Your task to perform on an android device: change the clock style Image 0: 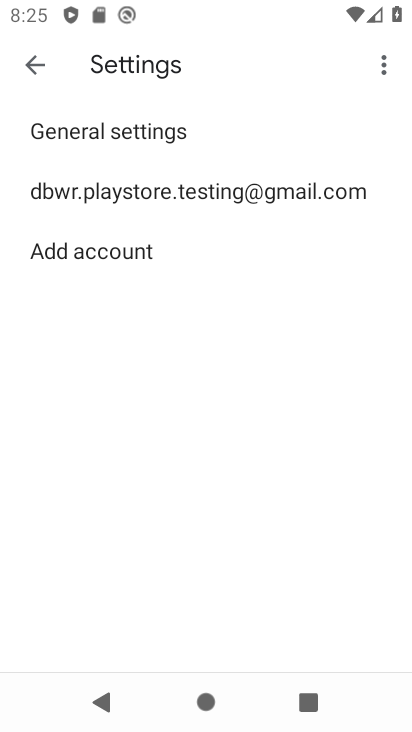
Step 0: press home button
Your task to perform on an android device: change the clock style Image 1: 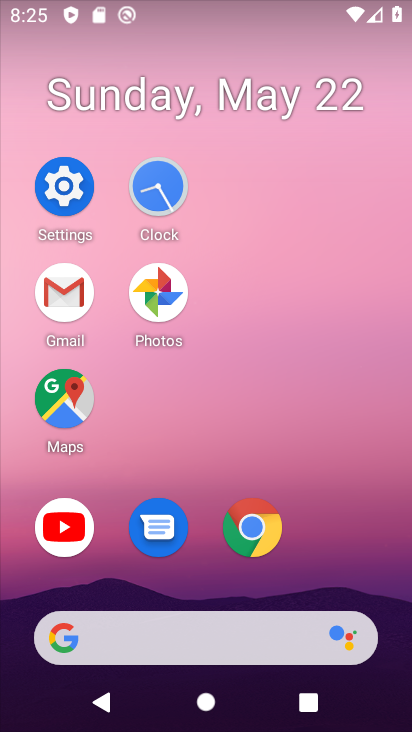
Step 1: click (175, 196)
Your task to perform on an android device: change the clock style Image 2: 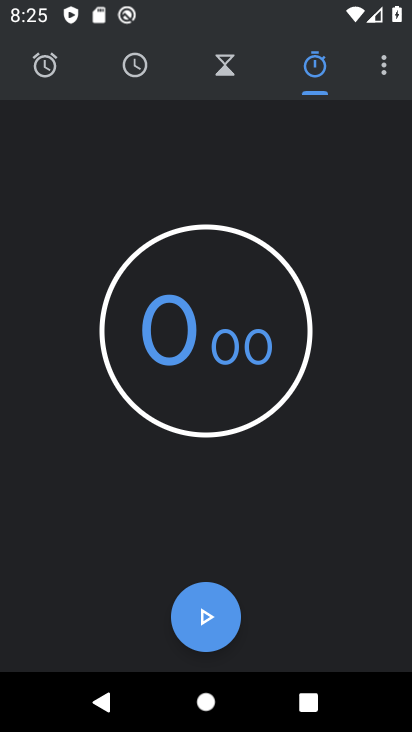
Step 2: click (394, 61)
Your task to perform on an android device: change the clock style Image 3: 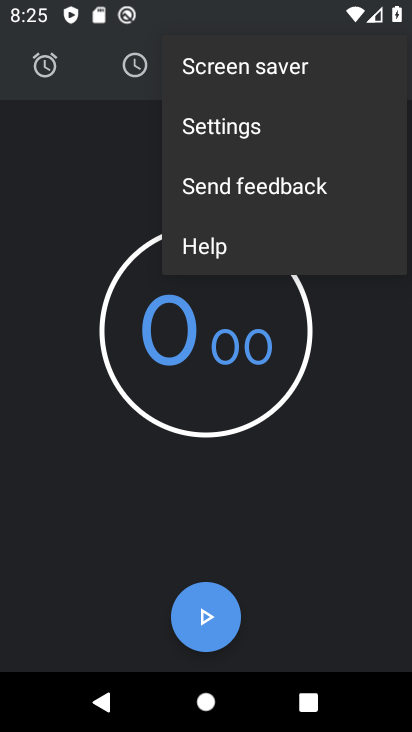
Step 3: click (188, 109)
Your task to perform on an android device: change the clock style Image 4: 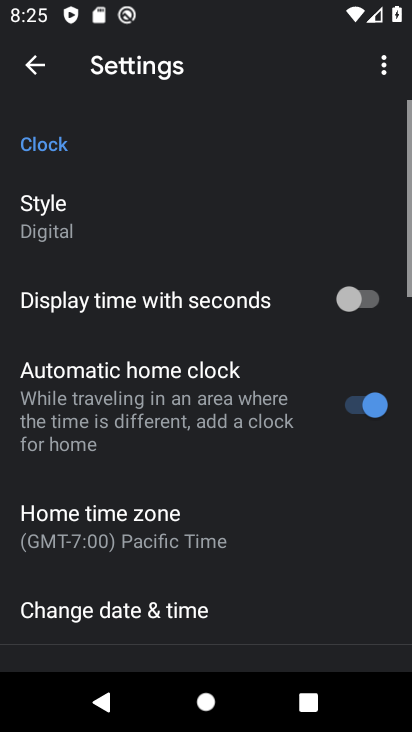
Step 4: click (98, 230)
Your task to perform on an android device: change the clock style Image 5: 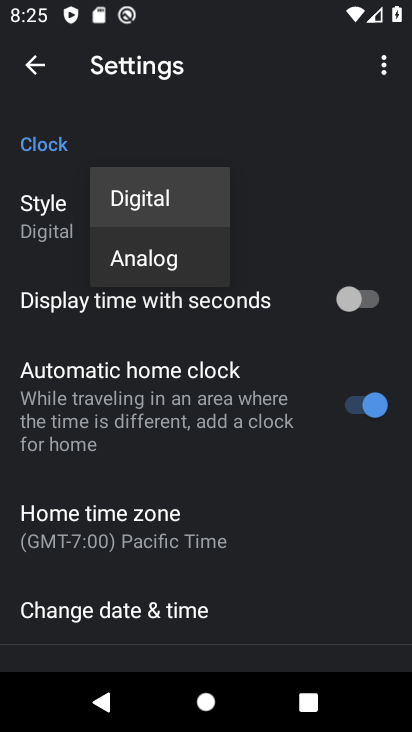
Step 5: click (119, 266)
Your task to perform on an android device: change the clock style Image 6: 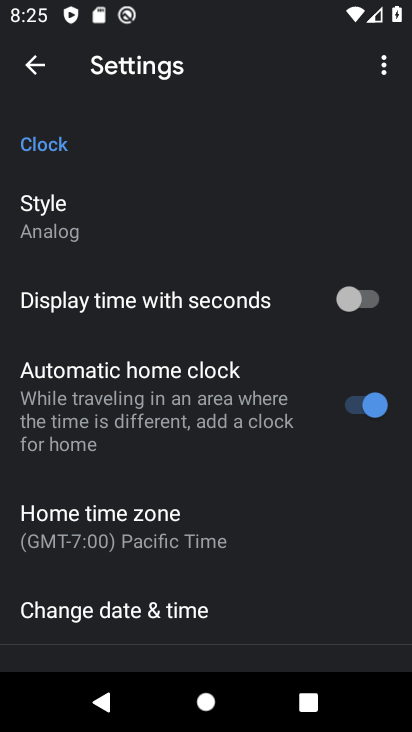
Step 6: task complete